Your task to perform on an android device: What's the weather? Image 0: 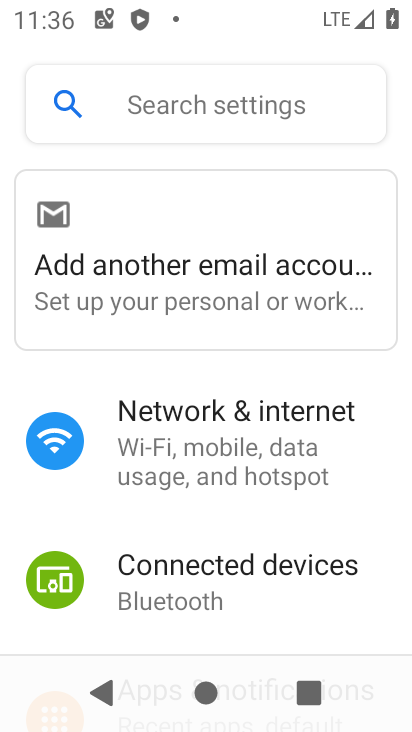
Step 0: press home button
Your task to perform on an android device: What's the weather? Image 1: 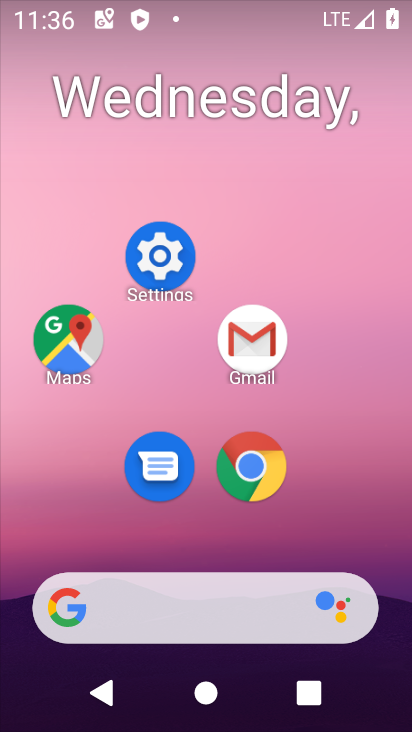
Step 1: click (198, 610)
Your task to perform on an android device: What's the weather? Image 2: 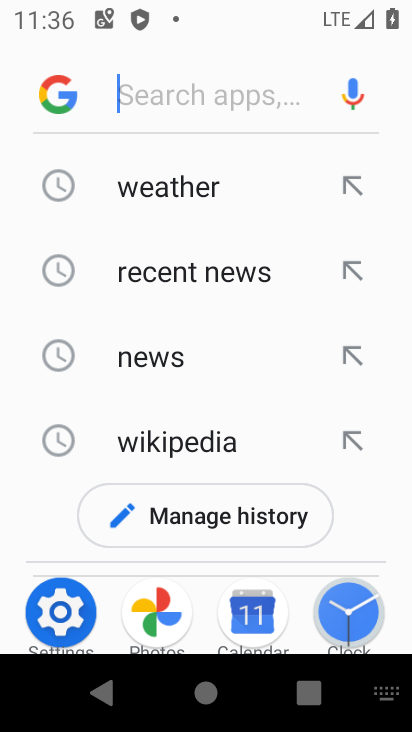
Step 2: click (193, 195)
Your task to perform on an android device: What's the weather? Image 3: 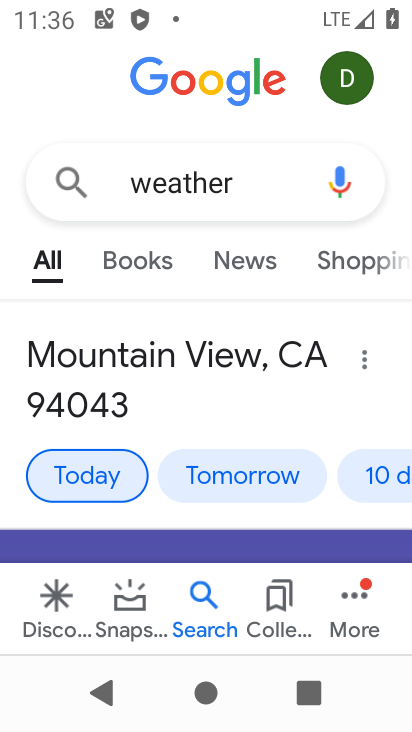
Step 3: task complete